Your task to perform on an android device: Open calendar and show me the third week of next month Image 0: 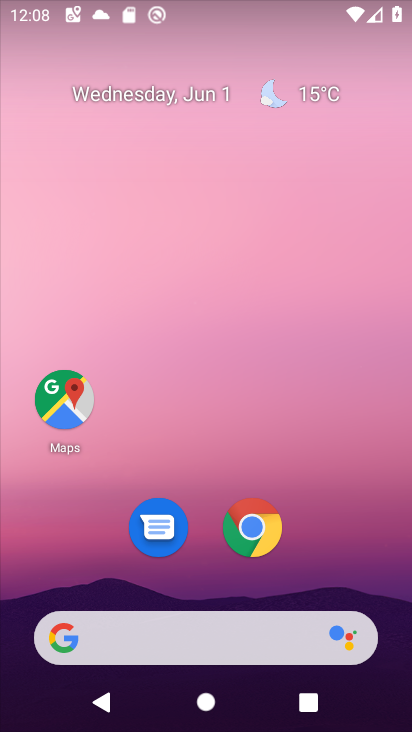
Step 0: drag from (366, 546) to (379, 2)
Your task to perform on an android device: Open calendar and show me the third week of next month Image 1: 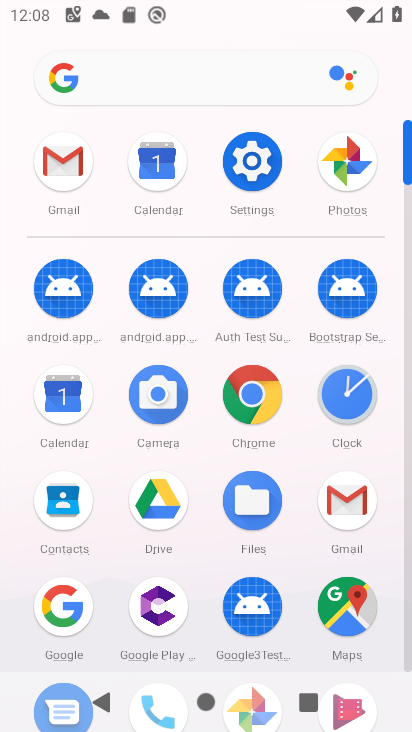
Step 1: click (143, 164)
Your task to perform on an android device: Open calendar and show me the third week of next month Image 2: 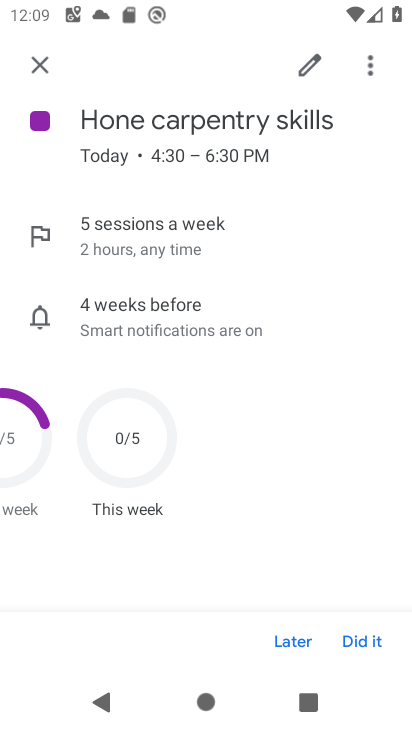
Step 2: click (36, 64)
Your task to perform on an android device: Open calendar and show me the third week of next month Image 3: 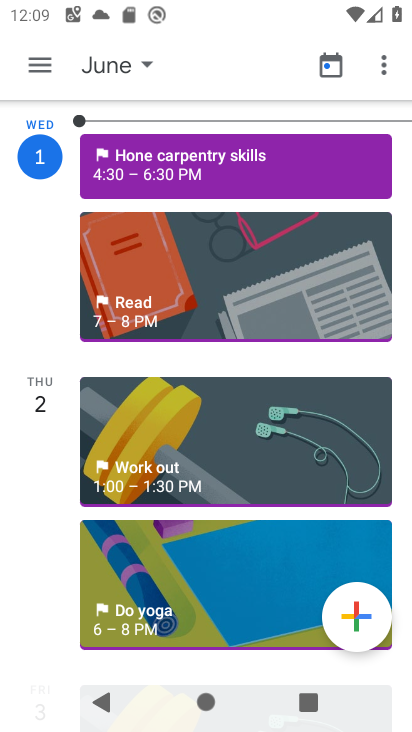
Step 3: click (148, 62)
Your task to perform on an android device: Open calendar and show me the third week of next month Image 4: 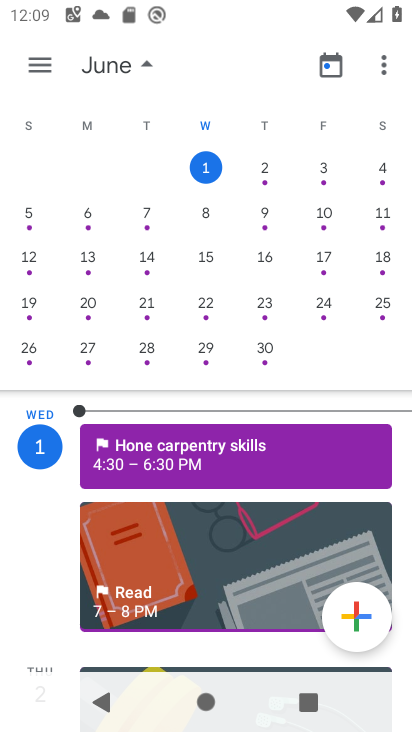
Step 4: drag from (314, 300) to (24, 150)
Your task to perform on an android device: Open calendar and show me the third week of next month Image 5: 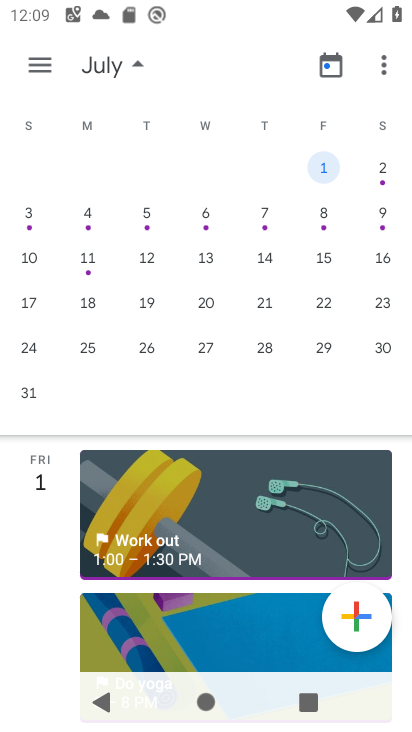
Step 5: click (43, 68)
Your task to perform on an android device: Open calendar and show me the third week of next month Image 6: 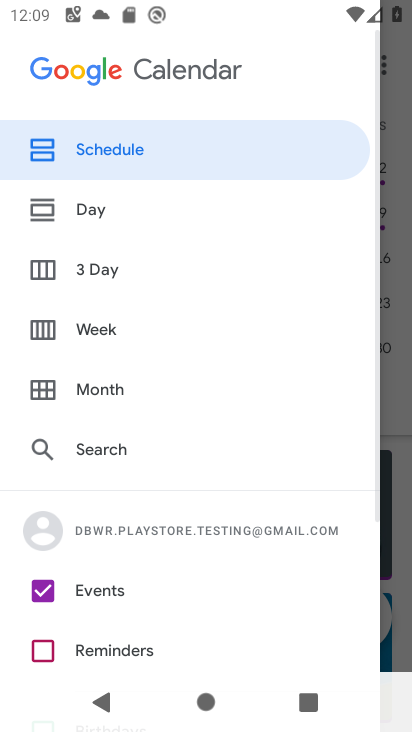
Step 6: click (64, 337)
Your task to perform on an android device: Open calendar and show me the third week of next month Image 7: 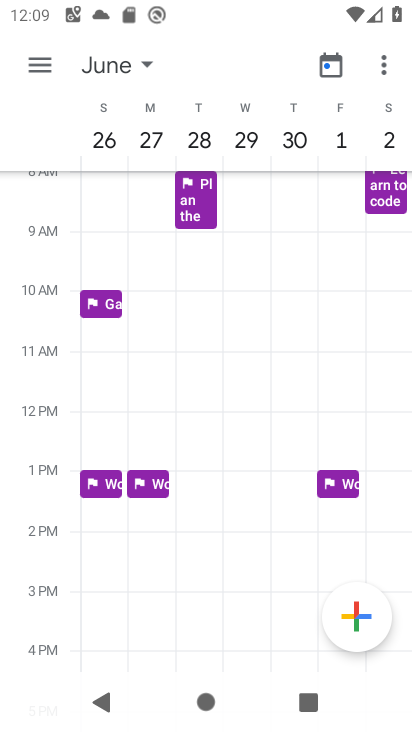
Step 7: task complete